Your task to perform on an android device: Open Reddit.com Image 0: 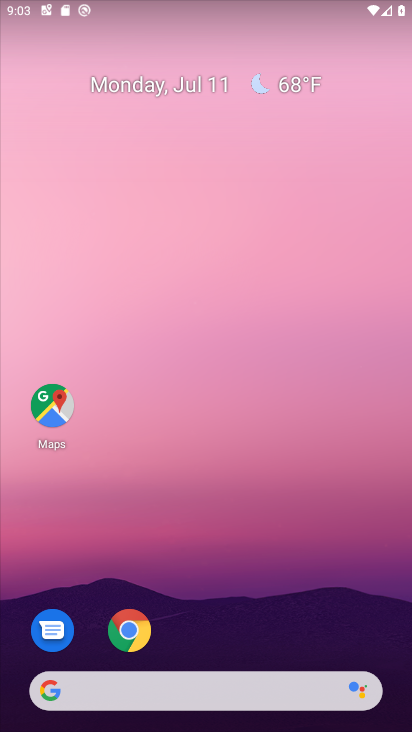
Step 0: click (131, 632)
Your task to perform on an android device: Open Reddit.com Image 1: 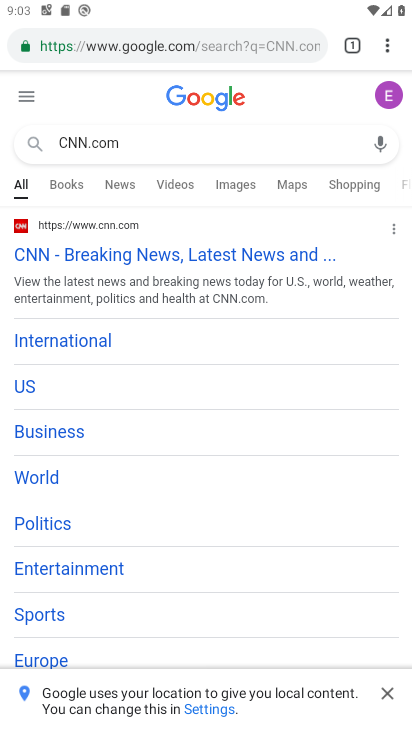
Step 1: click (201, 154)
Your task to perform on an android device: Open Reddit.com Image 2: 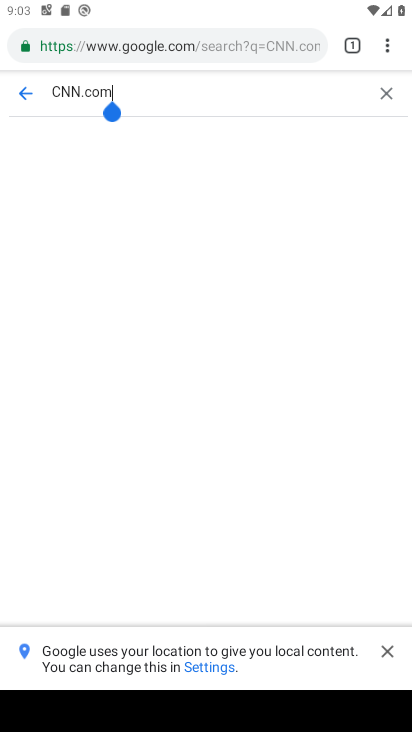
Step 2: click (277, 38)
Your task to perform on an android device: Open Reddit.com Image 3: 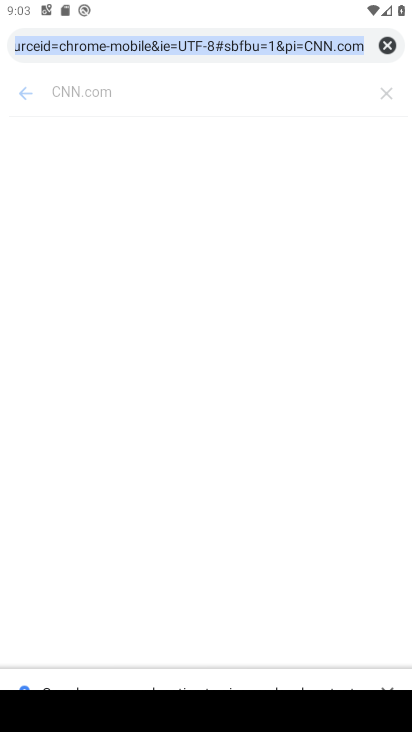
Step 3: click (390, 48)
Your task to perform on an android device: Open Reddit.com Image 4: 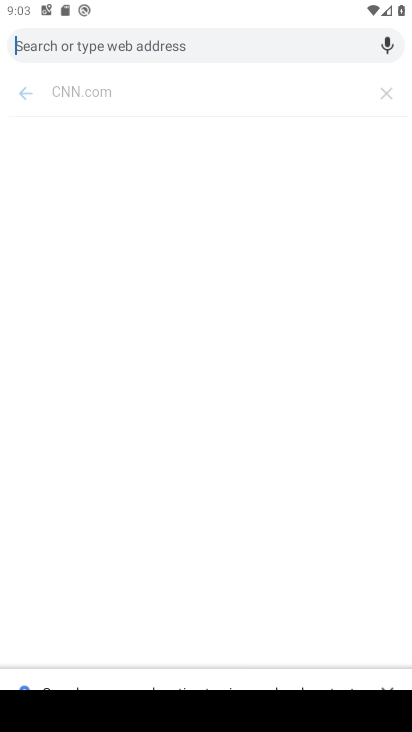
Step 4: type "Reddit.com"
Your task to perform on an android device: Open Reddit.com Image 5: 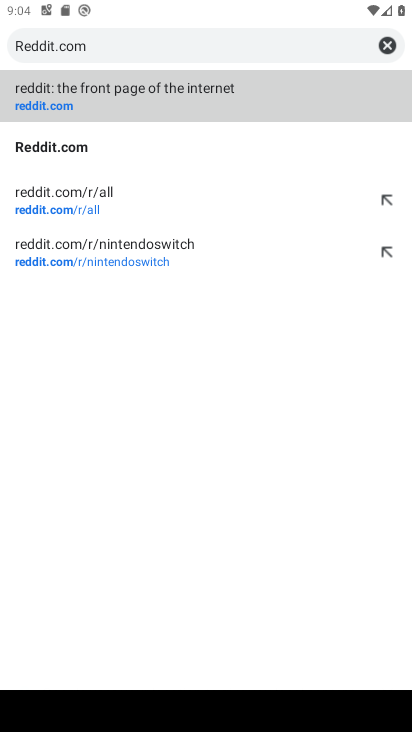
Step 5: click (64, 155)
Your task to perform on an android device: Open Reddit.com Image 6: 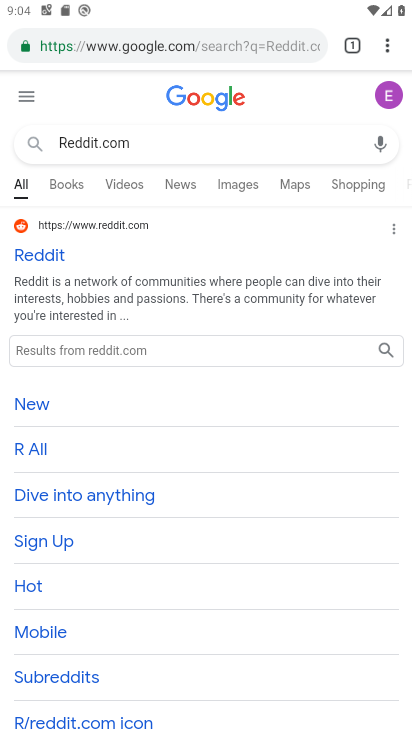
Step 6: task complete